Your task to perform on an android device: change keyboard looks Image 0: 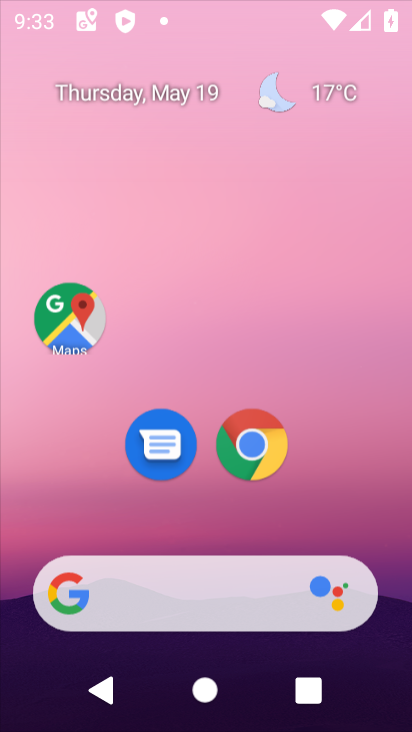
Step 0: click (270, 457)
Your task to perform on an android device: change keyboard looks Image 1: 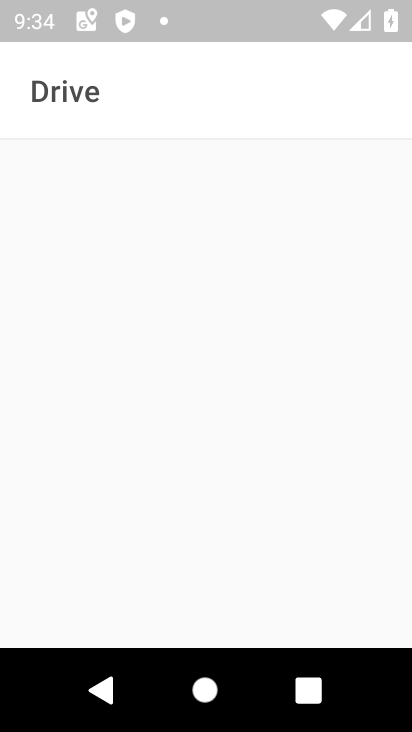
Step 1: press home button
Your task to perform on an android device: change keyboard looks Image 2: 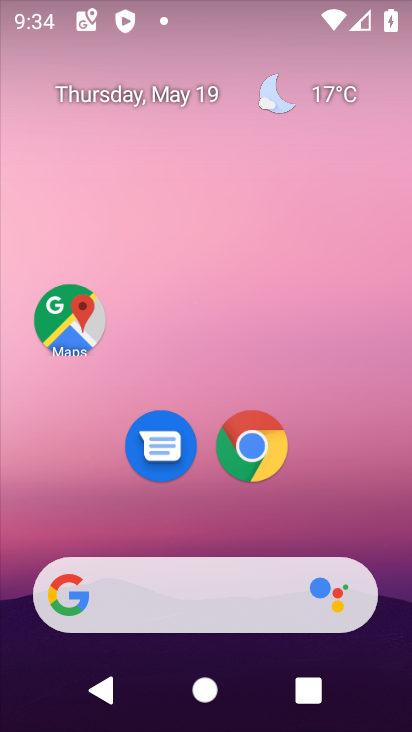
Step 2: drag from (224, 537) to (233, 19)
Your task to perform on an android device: change keyboard looks Image 3: 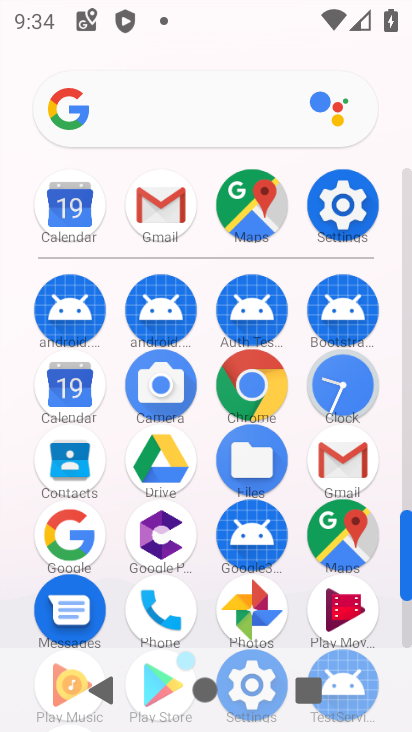
Step 3: click (333, 198)
Your task to perform on an android device: change keyboard looks Image 4: 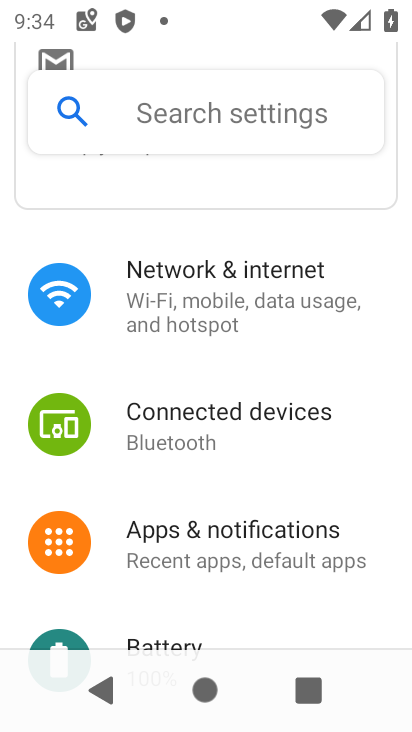
Step 4: drag from (226, 536) to (265, 272)
Your task to perform on an android device: change keyboard looks Image 5: 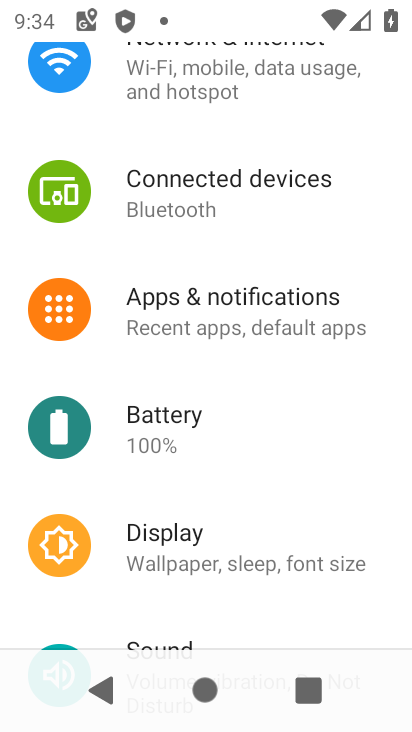
Step 5: drag from (210, 554) to (293, 192)
Your task to perform on an android device: change keyboard looks Image 6: 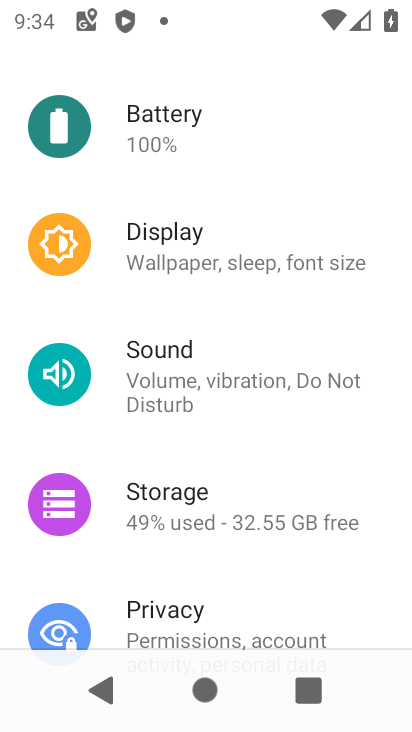
Step 6: drag from (226, 561) to (300, 250)
Your task to perform on an android device: change keyboard looks Image 7: 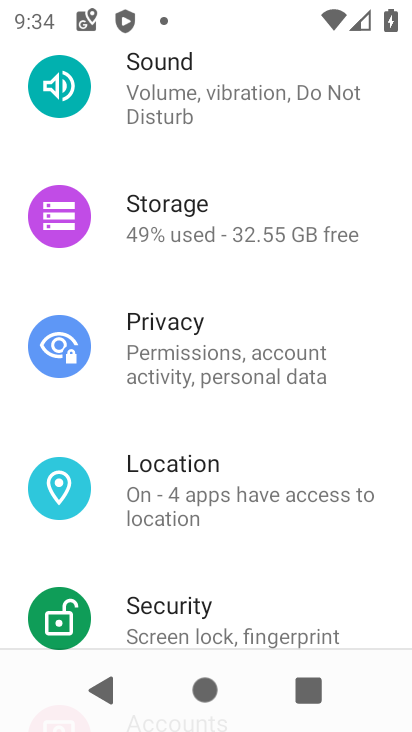
Step 7: drag from (184, 566) to (216, 255)
Your task to perform on an android device: change keyboard looks Image 8: 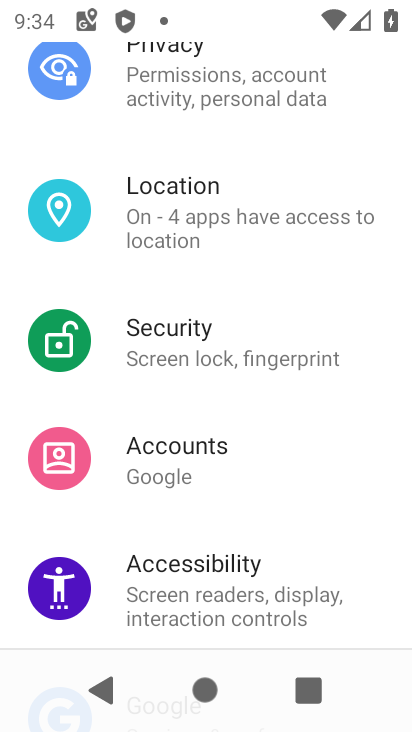
Step 8: drag from (197, 598) to (258, 177)
Your task to perform on an android device: change keyboard looks Image 9: 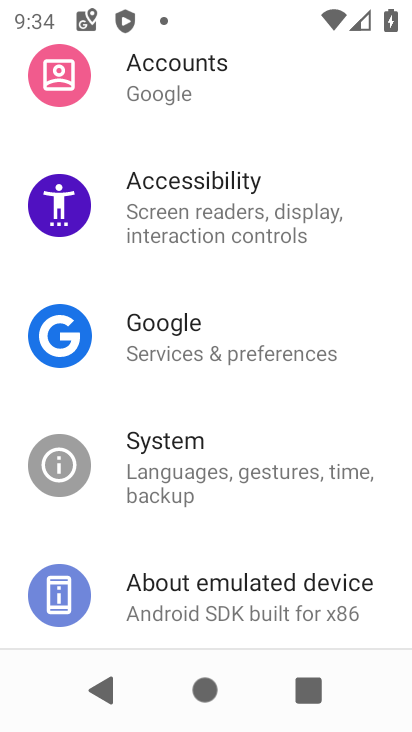
Step 9: click (212, 478)
Your task to perform on an android device: change keyboard looks Image 10: 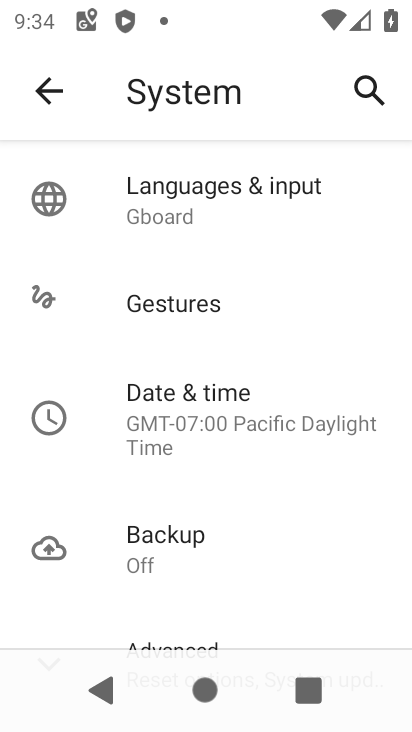
Step 10: click (201, 191)
Your task to perform on an android device: change keyboard looks Image 11: 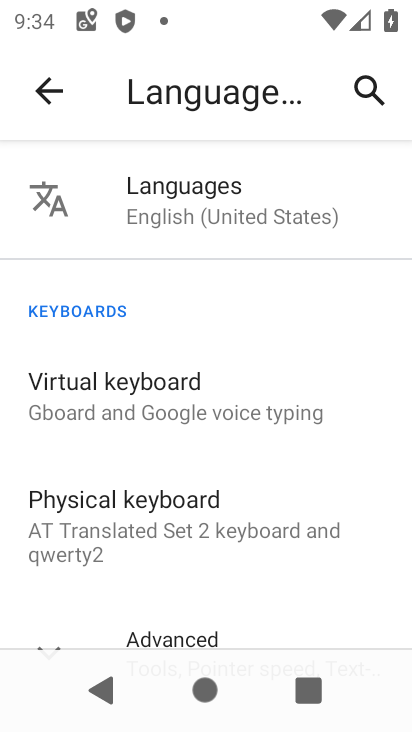
Step 11: click (153, 389)
Your task to perform on an android device: change keyboard looks Image 12: 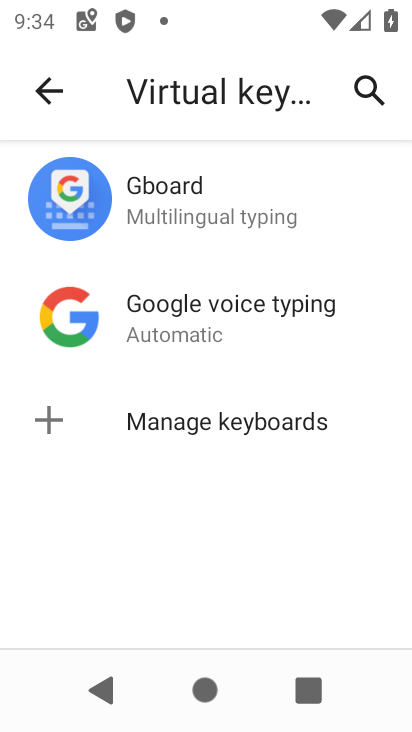
Step 12: click (220, 219)
Your task to perform on an android device: change keyboard looks Image 13: 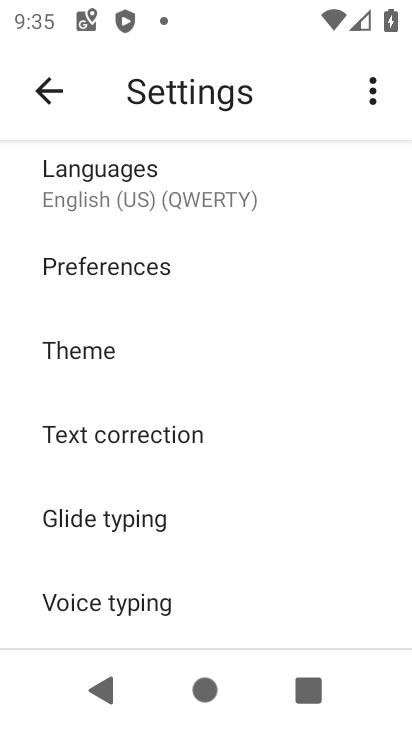
Step 13: click (151, 197)
Your task to perform on an android device: change keyboard looks Image 14: 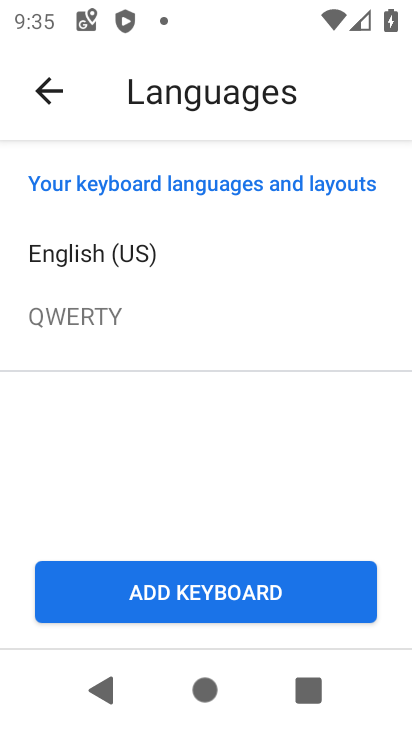
Step 14: click (52, 95)
Your task to perform on an android device: change keyboard looks Image 15: 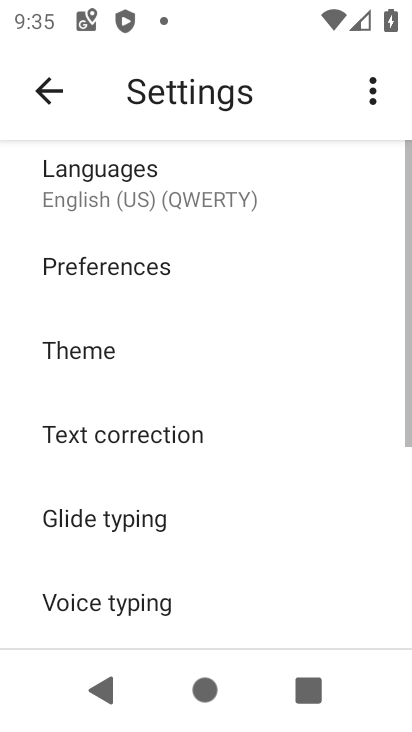
Step 15: click (112, 344)
Your task to perform on an android device: change keyboard looks Image 16: 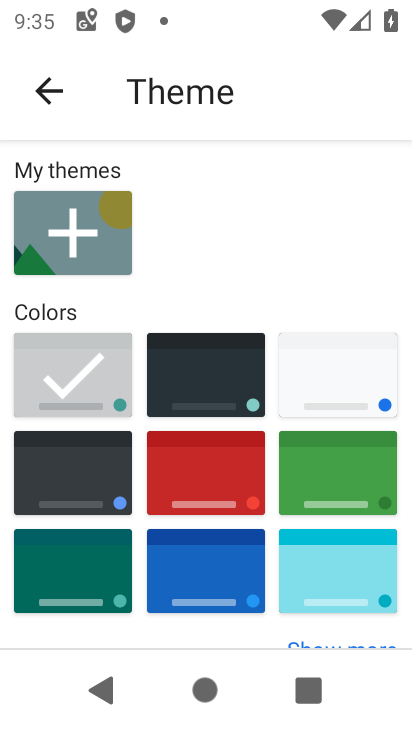
Step 16: click (51, 488)
Your task to perform on an android device: change keyboard looks Image 17: 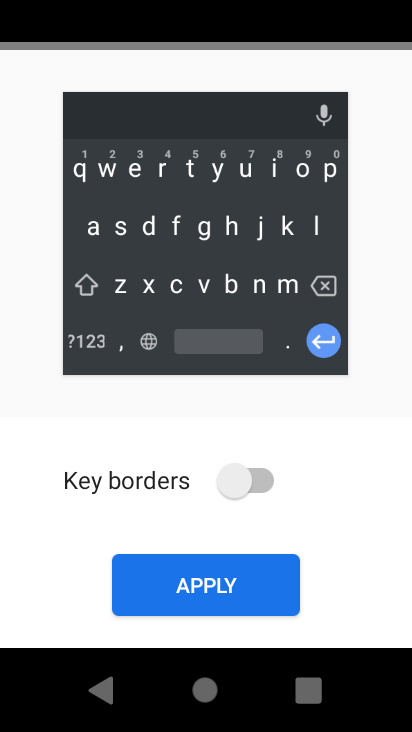
Step 17: click (233, 588)
Your task to perform on an android device: change keyboard looks Image 18: 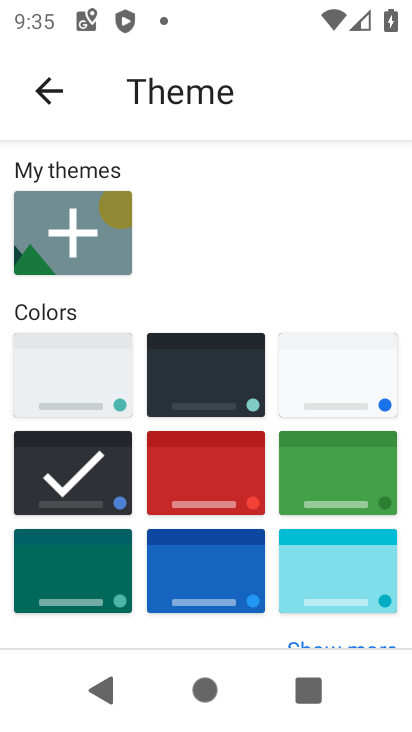
Step 18: task complete